Your task to perform on an android device: Set the phone to "Do not disturb". Image 0: 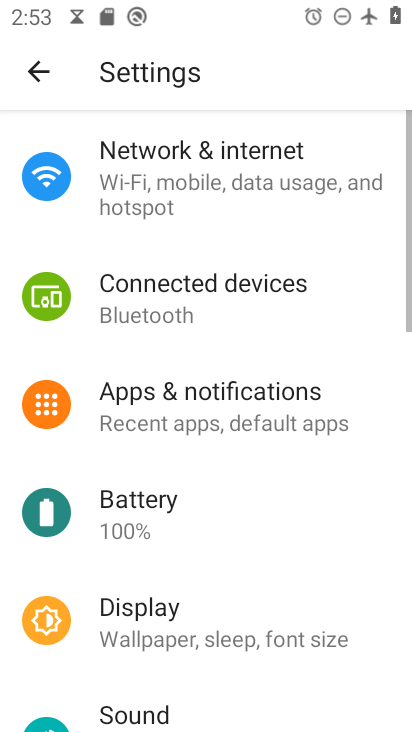
Step 0: press home button
Your task to perform on an android device: Set the phone to "Do not disturb". Image 1: 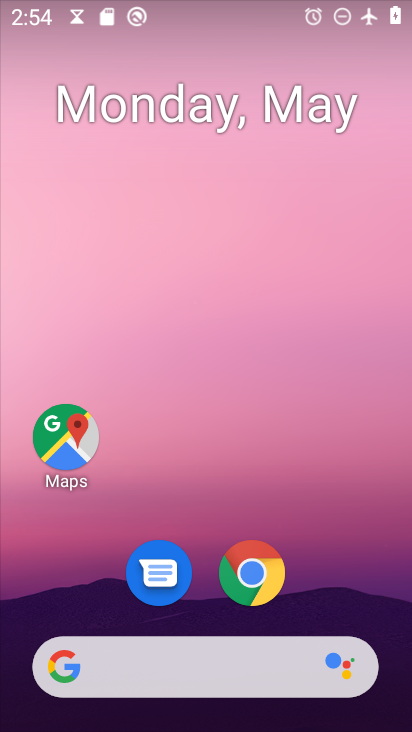
Step 1: drag from (117, 624) to (280, 6)
Your task to perform on an android device: Set the phone to "Do not disturb". Image 2: 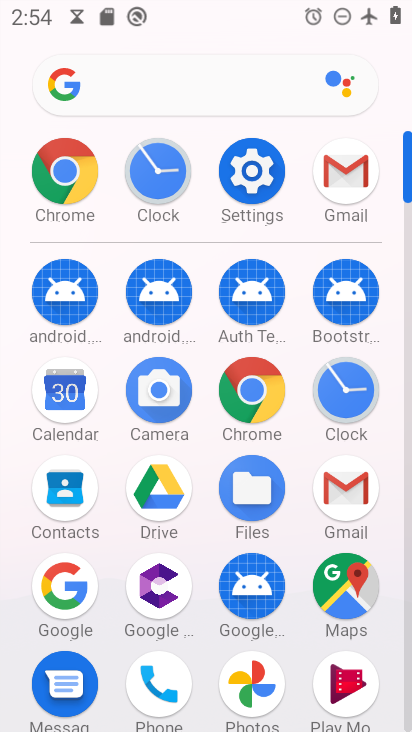
Step 2: click (268, 172)
Your task to perform on an android device: Set the phone to "Do not disturb". Image 3: 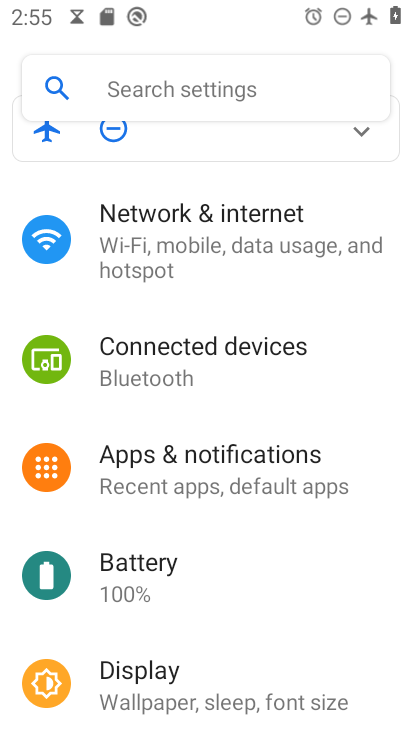
Step 3: drag from (197, 600) to (252, 107)
Your task to perform on an android device: Set the phone to "Do not disturb". Image 4: 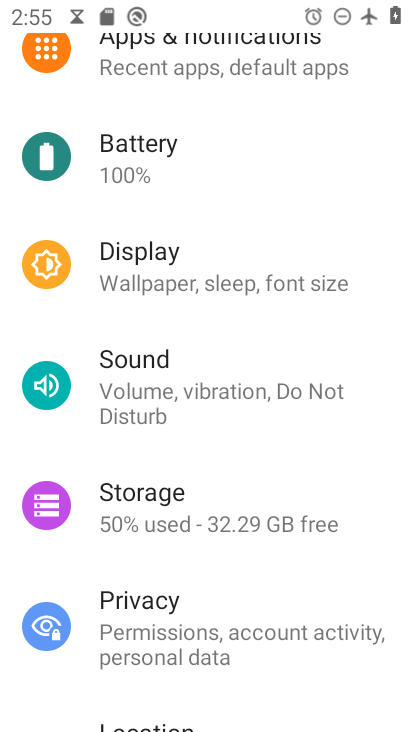
Step 4: click (262, 394)
Your task to perform on an android device: Set the phone to "Do not disturb". Image 5: 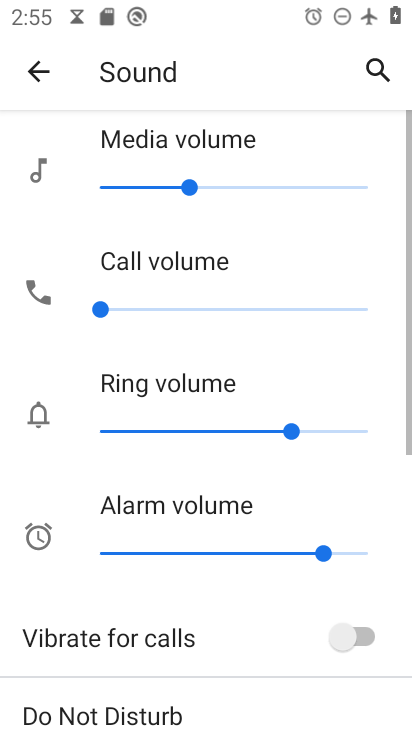
Step 5: drag from (240, 681) to (265, 241)
Your task to perform on an android device: Set the phone to "Do not disturb". Image 6: 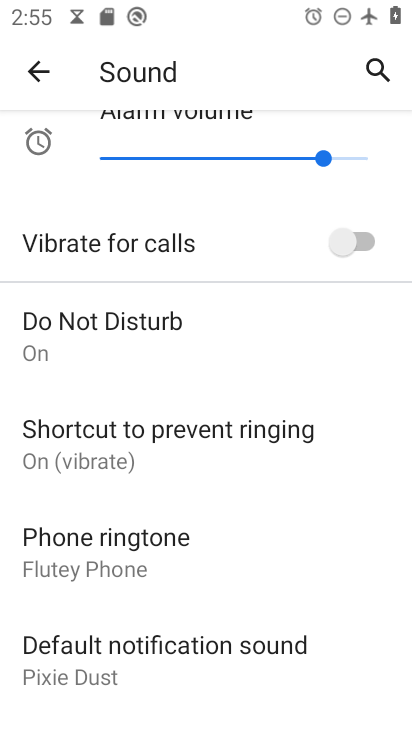
Step 6: click (131, 352)
Your task to perform on an android device: Set the phone to "Do not disturb". Image 7: 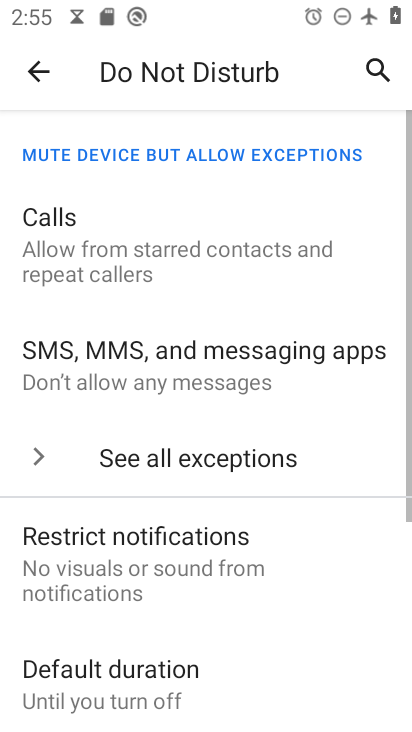
Step 7: task complete